Your task to perform on an android device: What's the weather going to be tomorrow? Image 0: 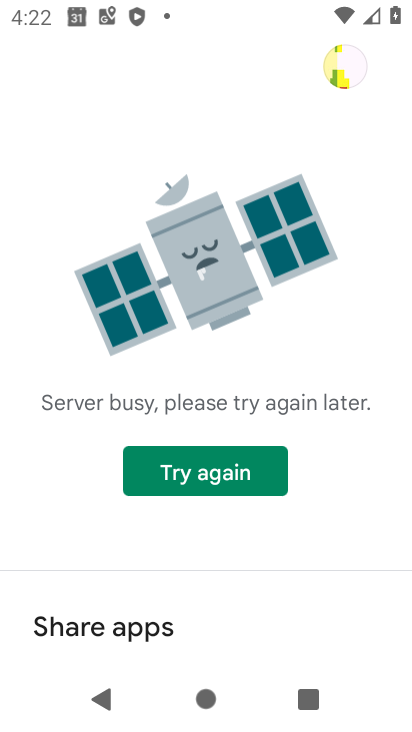
Step 0: press back button
Your task to perform on an android device: What's the weather going to be tomorrow? Image 1: 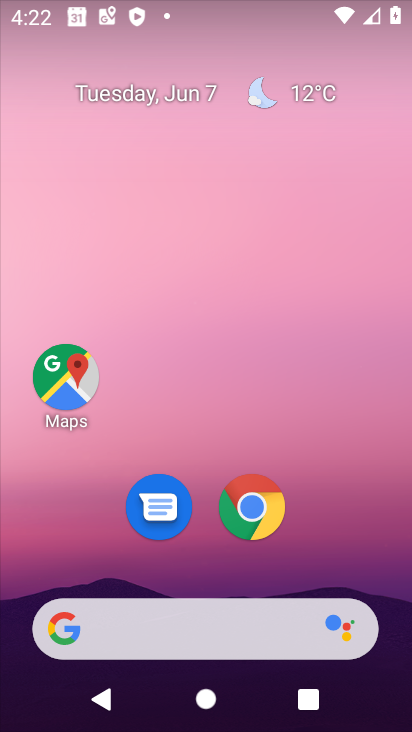
Step 1: drag from (337, 555) to (263, 2)
Your task to perform on an android device: What's the weather going to be tomorrow? Image 2: 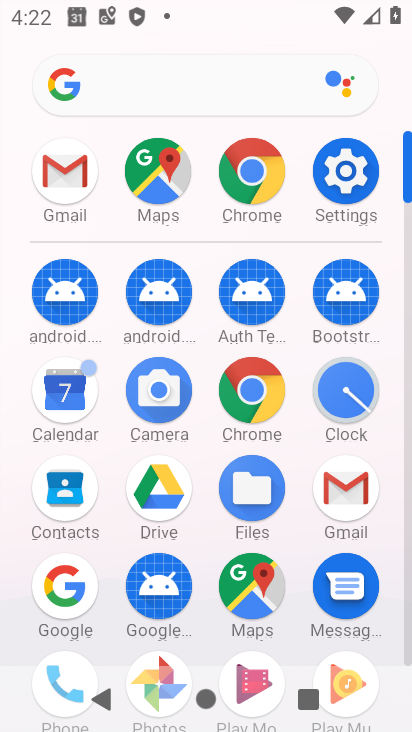
Step 2: drag from (7, 584) to (6, 230)
Your task to perform on an android device: What's the weather going to be tomorrow? Image 3: 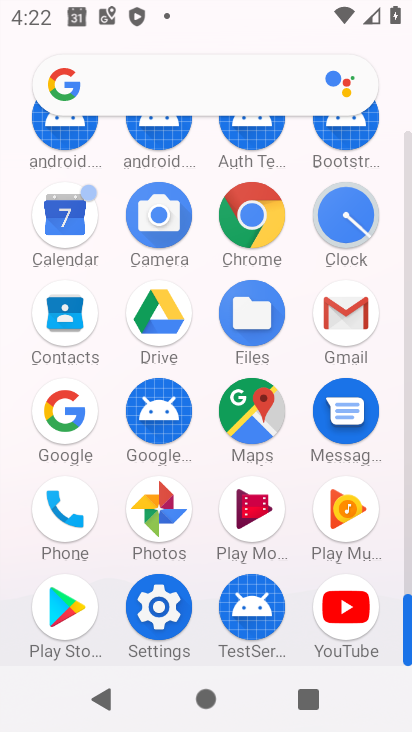
Step 3: drag from (23, 558) to (29, 182)
Your task to perform on an android device: What's the weather going to be tomorrow? Image 4: 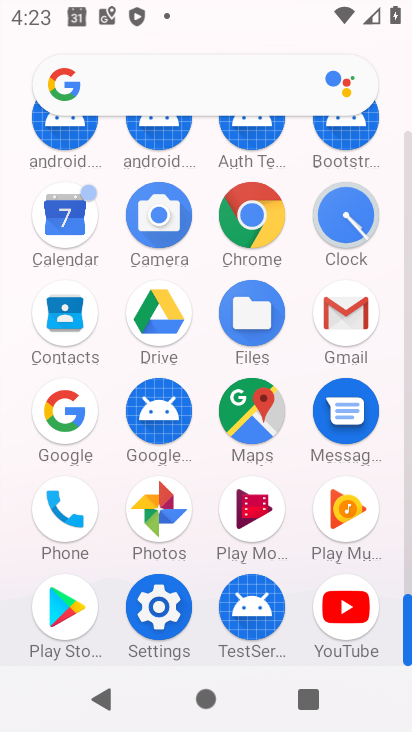
Step 4: click (251, 208)
Your task to perform on an android device: What's the weather going to be tomorrow? Image 5: 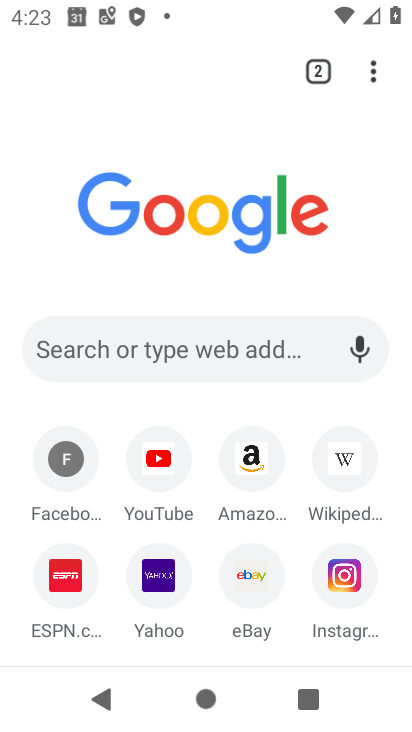
Step 5: click (189, 364)
Your task to perform on an android device: What's the weather going to be tomorrow? Image 6: 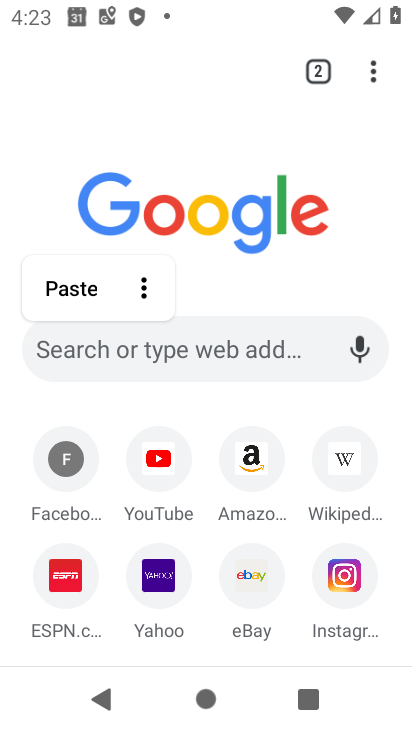
Step 6: click (111, 349)
Your task to perform on an android device: What's the weather going to be tomorrow? Image 7: 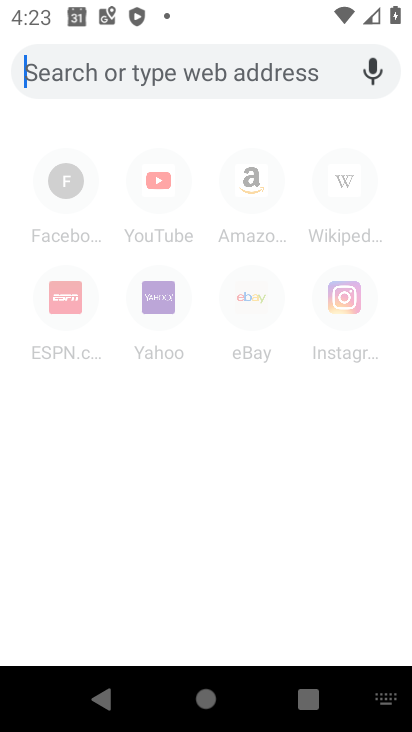
Step 7: type "What's the weather going to be tomorrow?"
Your task to perform on an android device: What's the weather going to be tomorrow? Image 8: 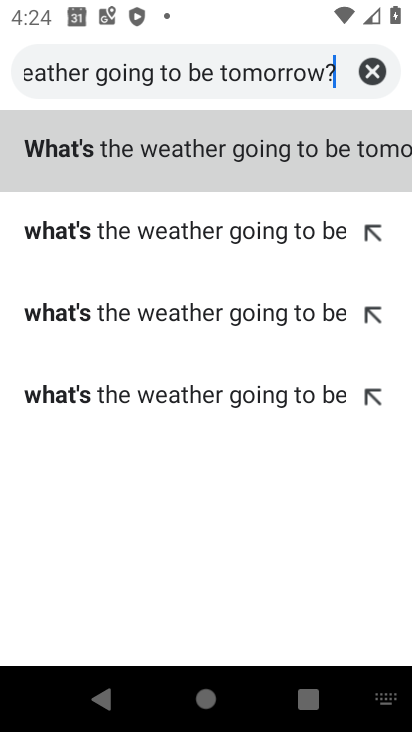
Step 8: type ""
Your task to perform on an android device: What's the weather going to be tomorrow? Image 9: 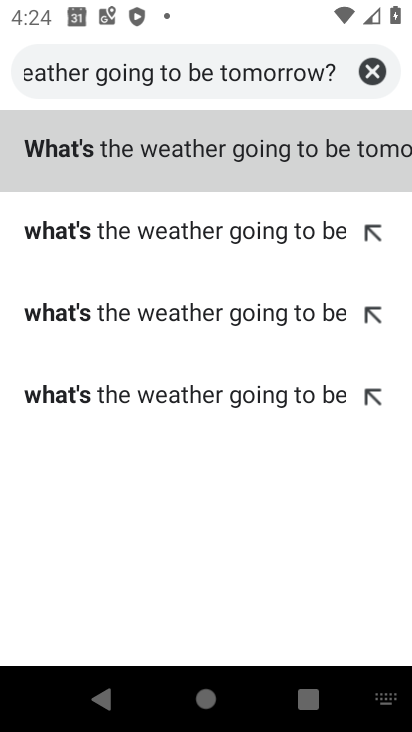
Step 9: click (311, 159)
Your task to perform on an android device: What's the weather going to be tomorrow? Image 10: 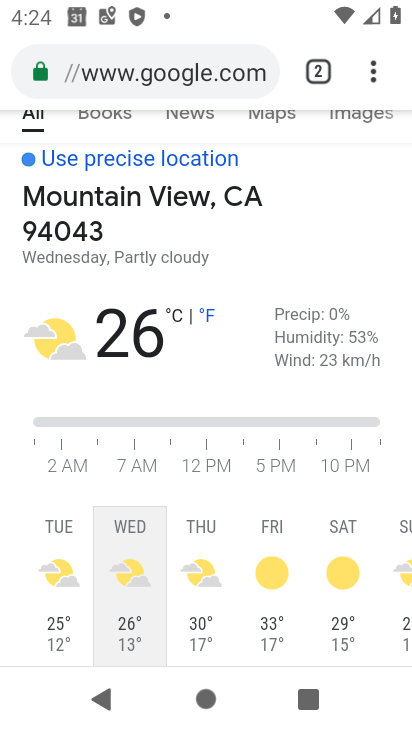
Step 10: task complete